Your task to perform on an android device: turn off data saver in the chrome app Image 0: 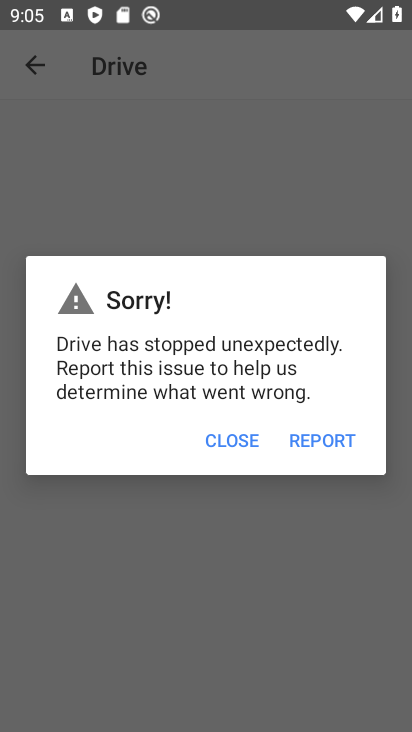
Step 0: press home button
Your task to perform on an android device: turn off data saver in the chrome app Image 1: 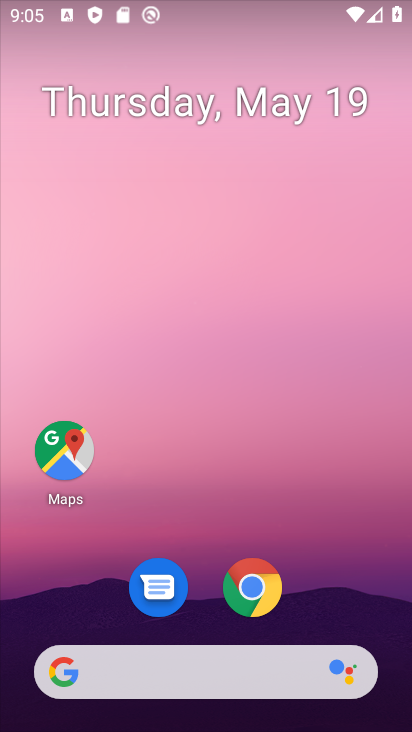
Step 1: drag from (338, 351) to (348, 18)
Your task to perform on an android device: turn off data saver in the chrome app Image 2: 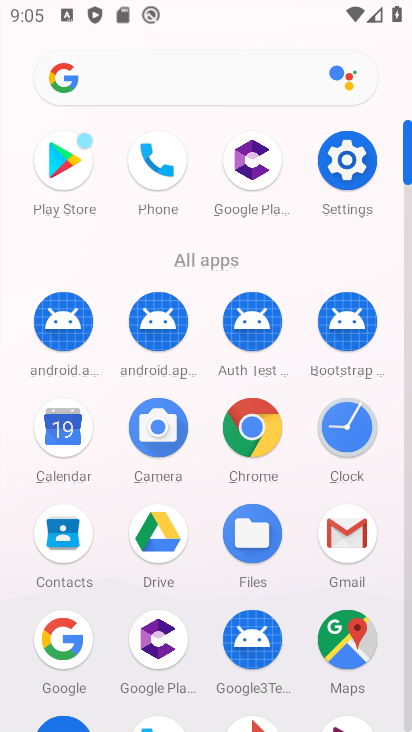
Step 2: click (256, 437)
Your task to perform on an android device: turn off data saver in the chrome app Image 3: 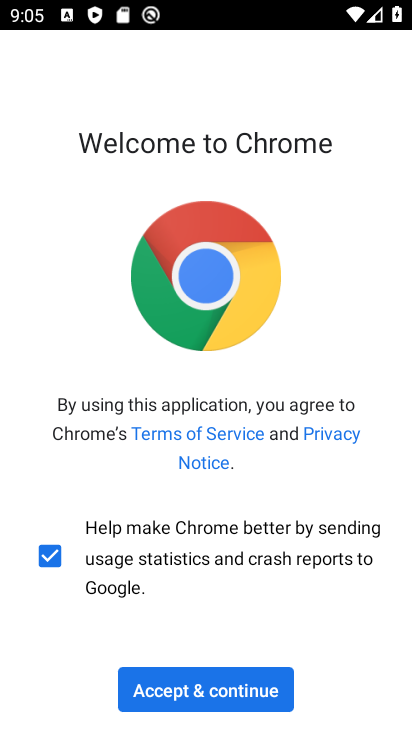
Step 3: click (232, 695)
Your task to perform on an android device: turn off data saver in the chrome app Image 4: 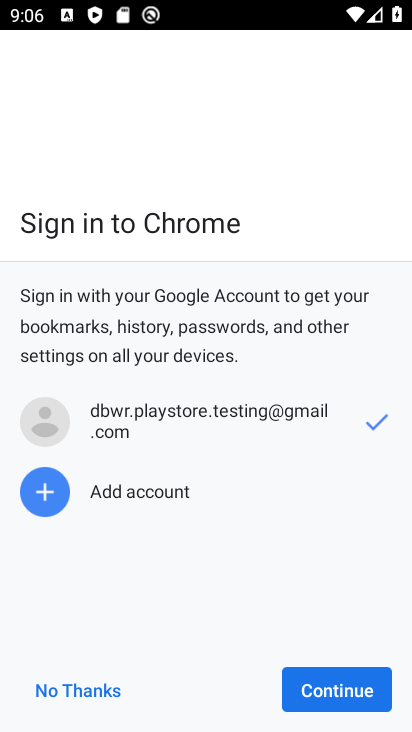
Step 4: click (80, 705)
Your task to perform on an android device: turn off data saver in the chrome app Image 5: 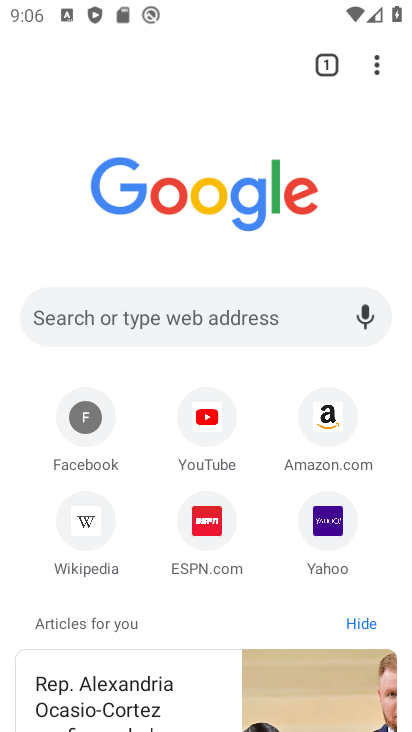
Step 5: click (364, 66)
Your task to perform on an android device: turn off data saver in the chrome app Image 6: 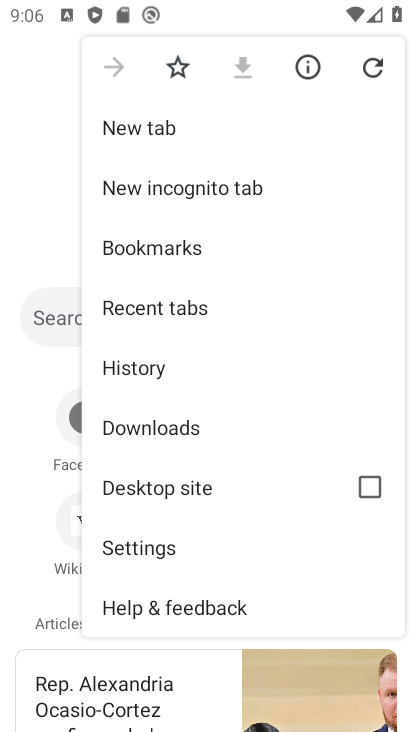
Step 6: click (154, 558)
Your task to perform on an android device: turn off data saver in the chrome app Image 7: 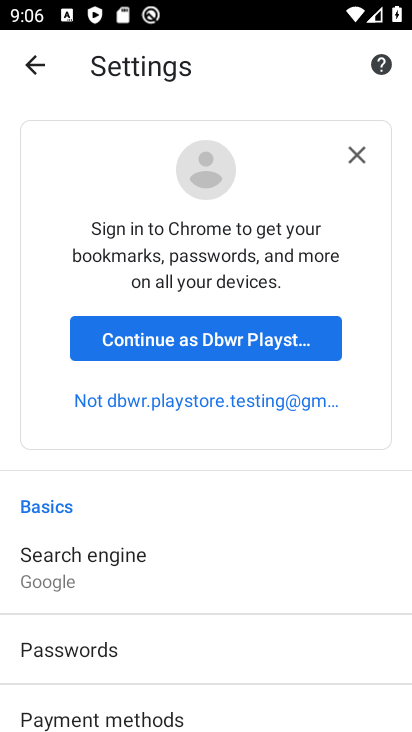
Step 7: drag from (171, 672) to (225, 298)
Your task to perform on an android device: turn off data saver in the chrome app Image 8: 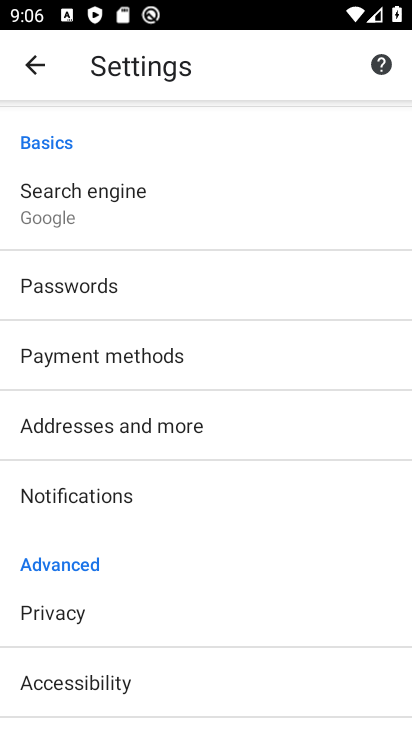
Step 8: drag from (126, 675) to (199, 313)
Your task to perform on an android device: turn off data saver in the chrome app Image 9: 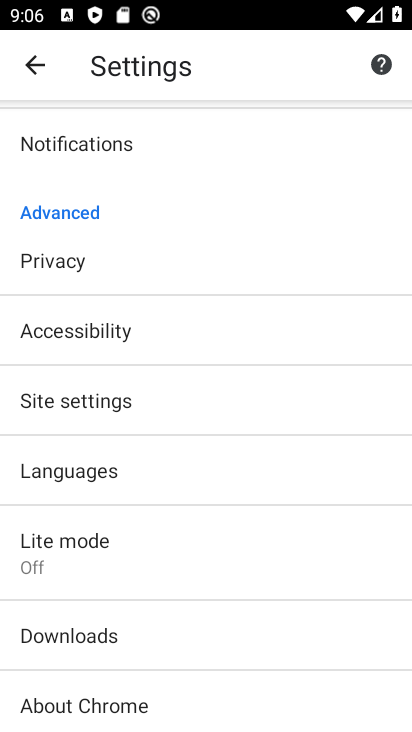
Step 9: click (73, 553)
Your task to perform on an android device: turn off data saver in the chrome app Image 10: 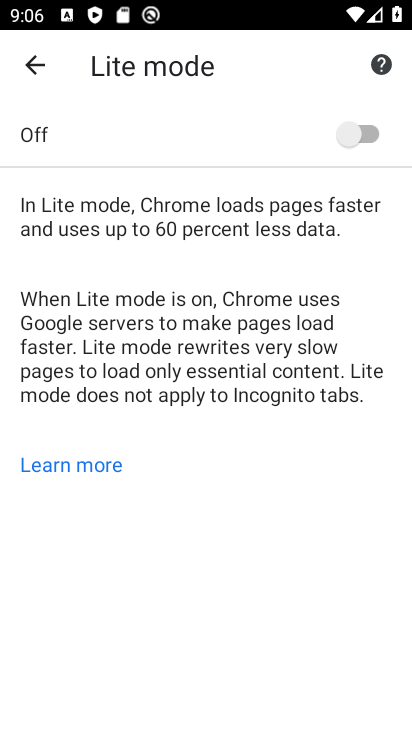
Step 10: task complete